Your task to perform on an android device: Turn off the flashlight Image 0: 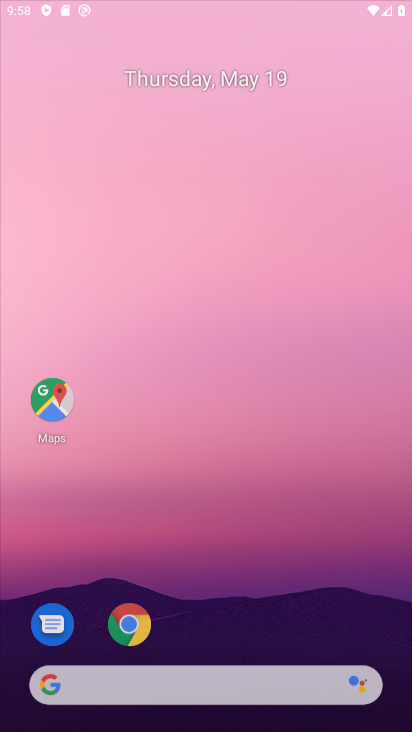
Step 0: click (306, 156)
Your task to perform on an android device: Turn off the flashlight Image 1: 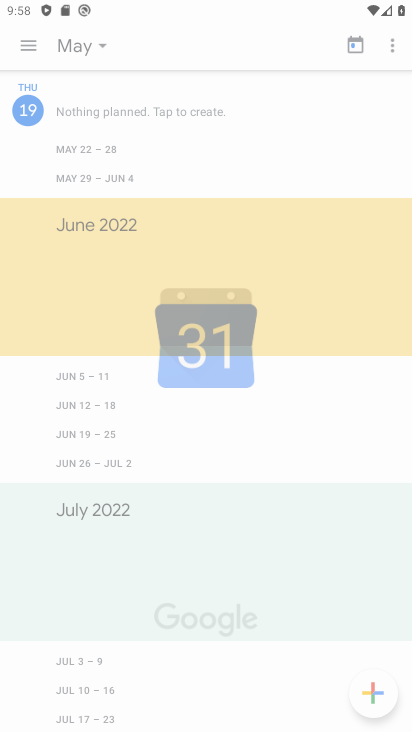
Step 1: drag from (328, 623) to (301, 199)
Your task to perform on an android device: Turn off the flashlight Image 2: 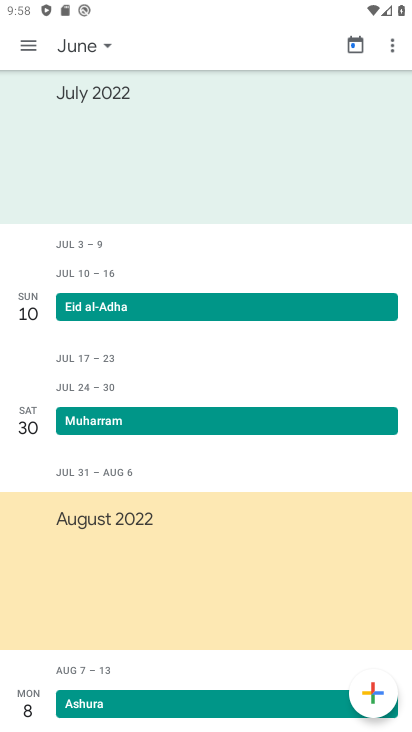
Step 2: press home button
Your task to perform on an android device: Turn off the flashlight Image 3: 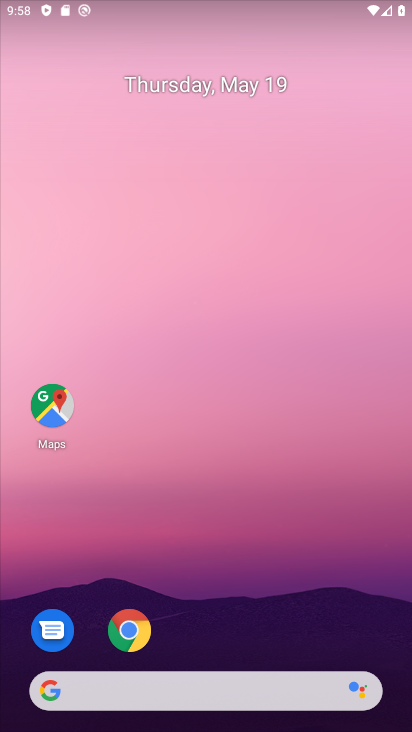
Step 3: drag from (350, 618) to (327, 93)
Your task to perform on an android device: Turn off the flashlight Image 4: 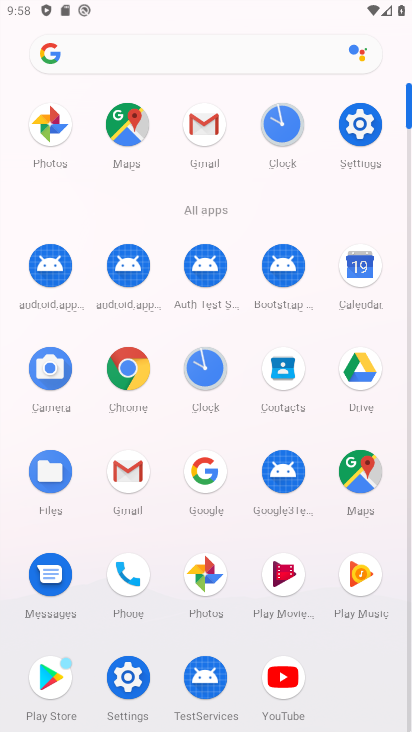
Step 4: click (349, 132)
Your task to perform on an android device: Turn off the flashlight Image 5: 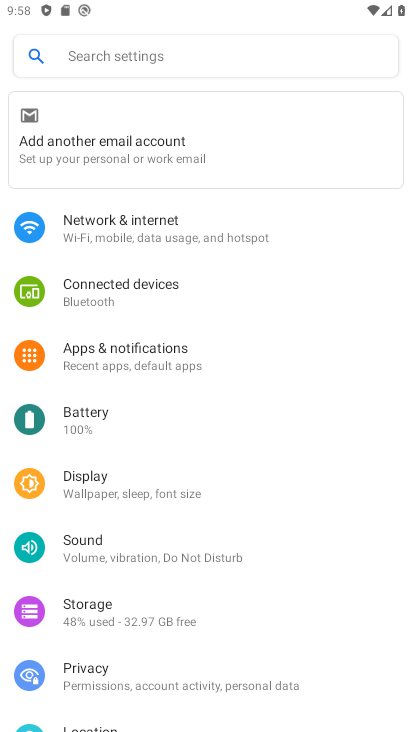
Step 5: click (192, 44)
Your task to perform on an android device: Turn off the flashlight Image 6: 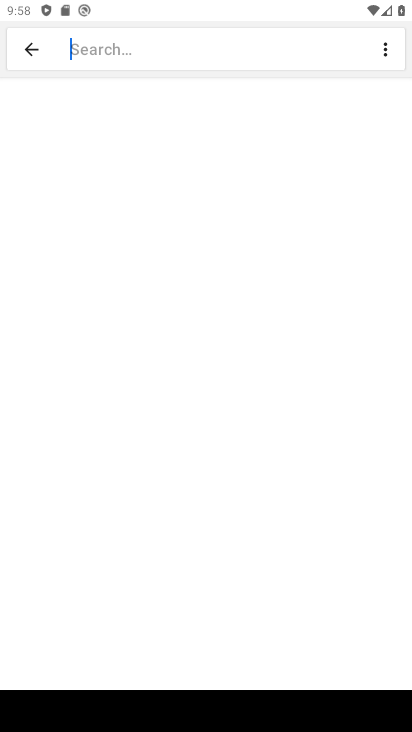
Step 6: type "flashlight"
Your task to perform on an android device: Turn off the flashlight Image 7: 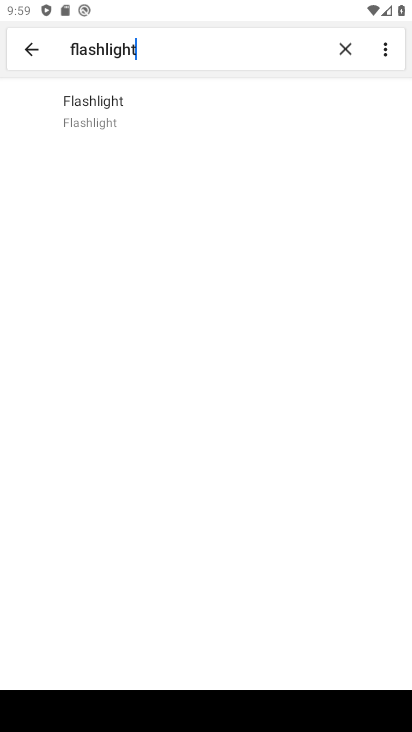
Step 7: click (113, 130)
Your task to perform on an android device: Turn off the flashlight Image 8: 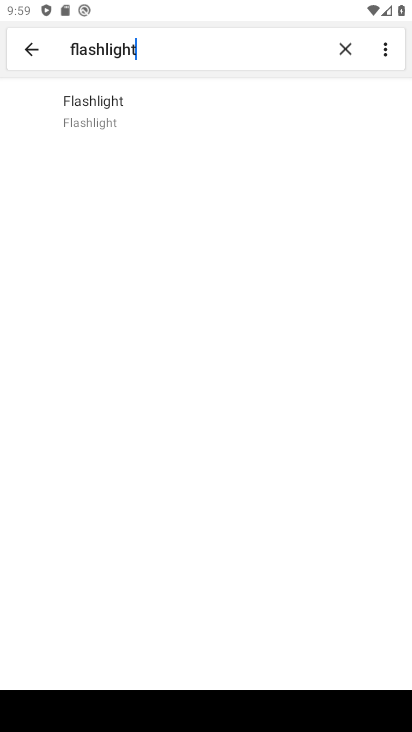
Step 8: task complete